Your task to perform on an android device: check google app version Image 0: 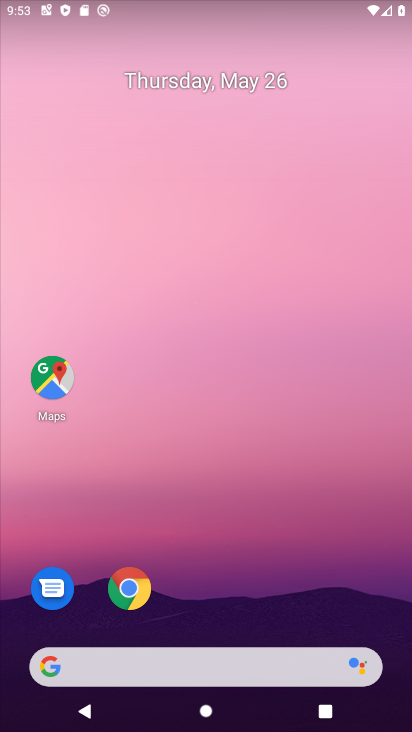
Step 0: drag from (233, 726) to (236, 27)
Your task to perform on an android device: check google app version Image 1: 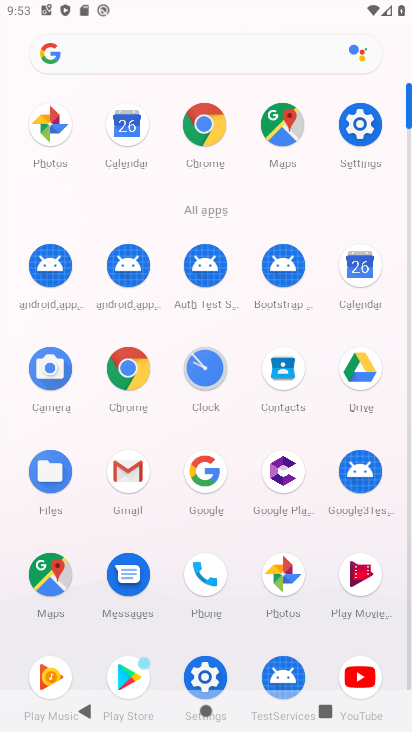
Step 1: click (205, 475)
Your task to perform on an android device: check google app version Image 2: 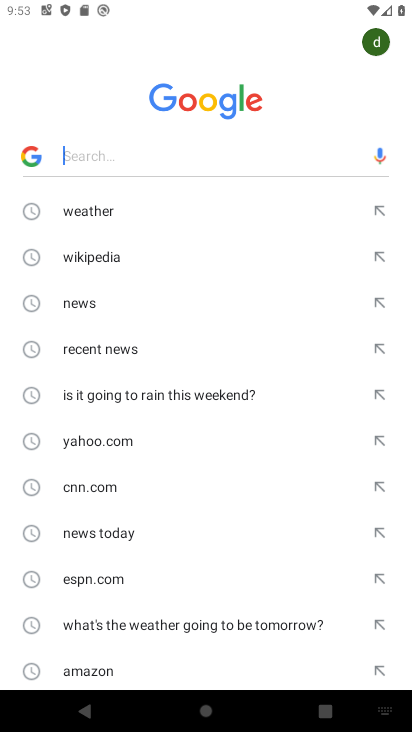
Step 2: click (52, 114)
Your task to perform on an android device: check google app version Image 3: 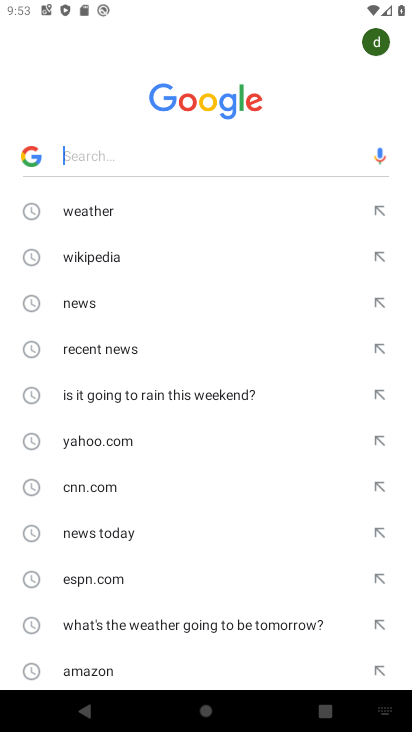
Step 3: click (34, 153)
Your task to perform on an android device: check google app version Image 4: 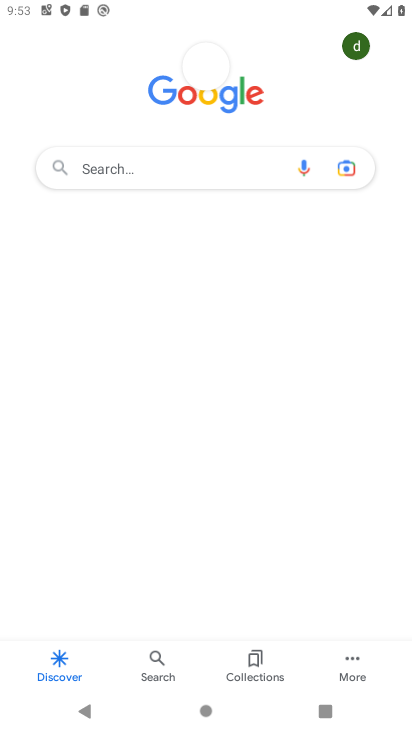
Step 4: click (352, 659)
Your task to perform on an android device: check google app version Image 5: 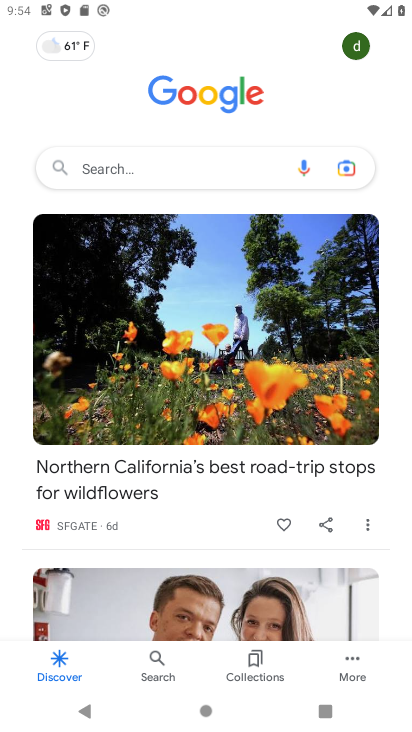
Step 5: click (354, 657)
Your task to perform on an android device: check google app version Image 6: 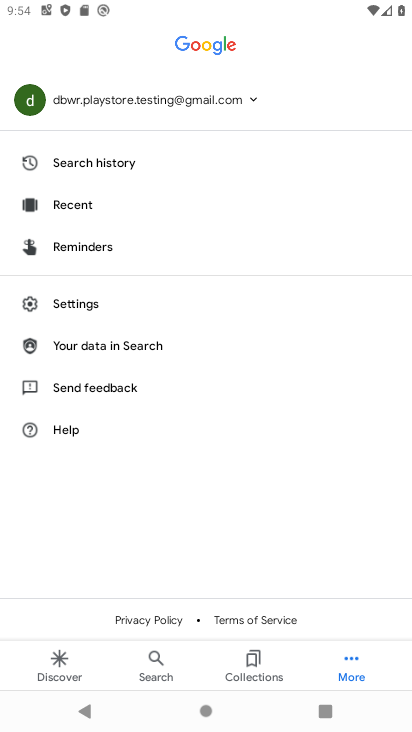
Step 6: click (81, 306)
Your task to perform on an android device: check google app version Image 7: 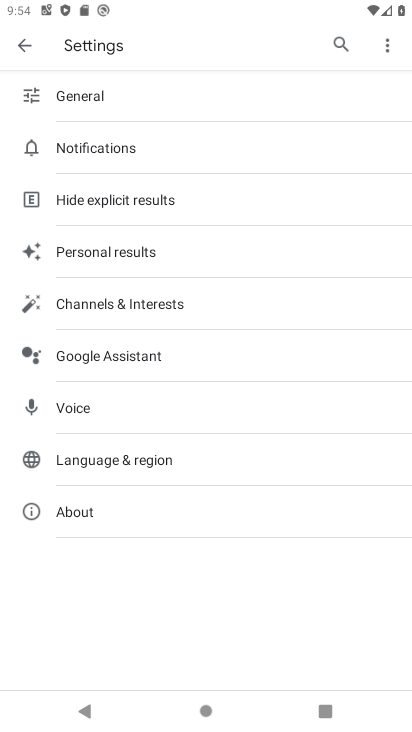
Step 7: click (85, 515)
Your task to perform on an android device: check google app version Image 8: 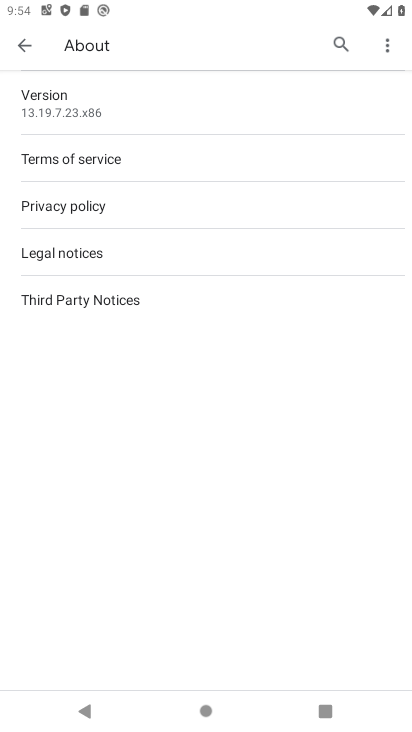
Step 8: task complete